Your task to perform on an android device: delete location history Image 0: 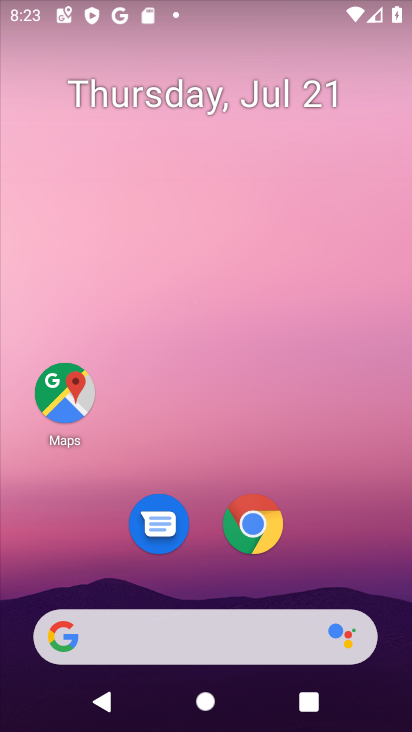
Step 0: click (79, 385)
Your task to perform on an android device: delete location history Image 1: 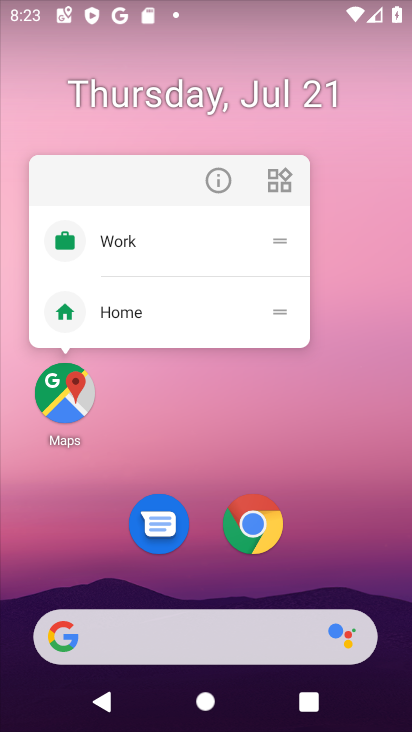
Step 1: click (71, 389)
Your task to perform on an android device: delete location history Image 2: 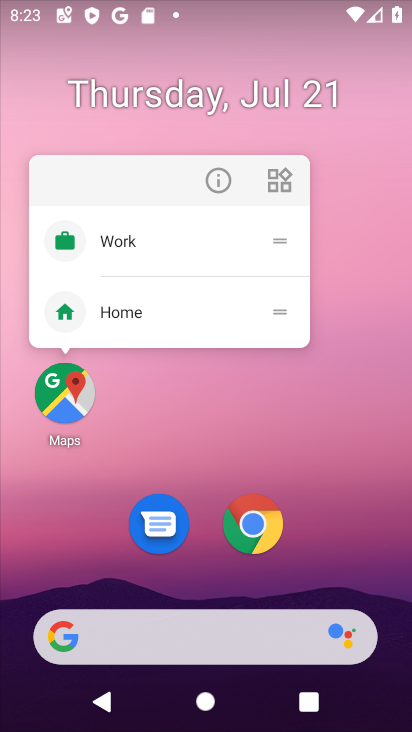
Step 2: click (66, 394)
Your task to perform on an android device: delete location history Image 3: 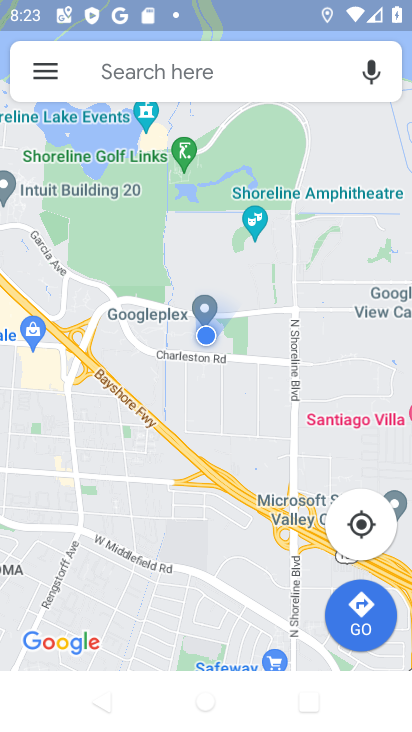
Step 3: click (47, 69)
Your task to perform on an android device: delete location history Image 4: 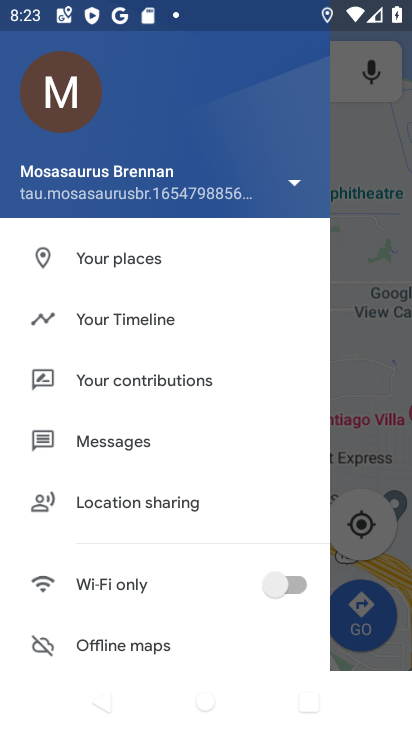
Step 4: click (138, 308)
Your task to perform on an android device: delete location history Image 5: 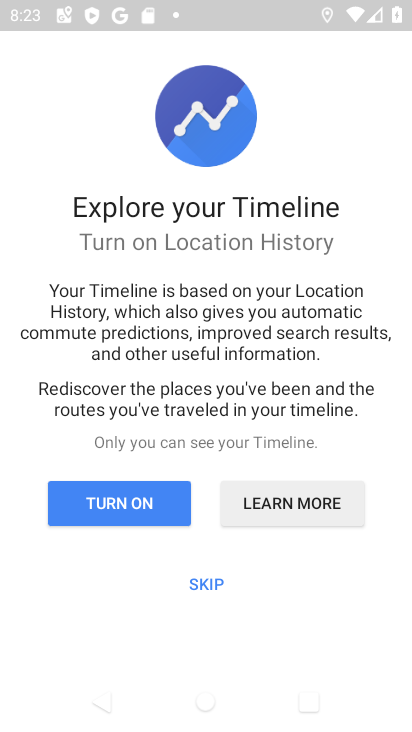
Step 5: click (224, 585)
Your task to perform on an android device: delete location history Image 6: 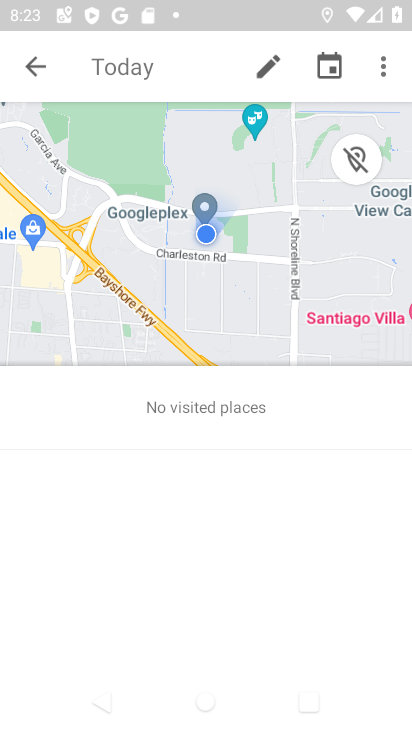
Step 6: click (378, 69)
Your task to perform on an android device: delete location history Image 7: 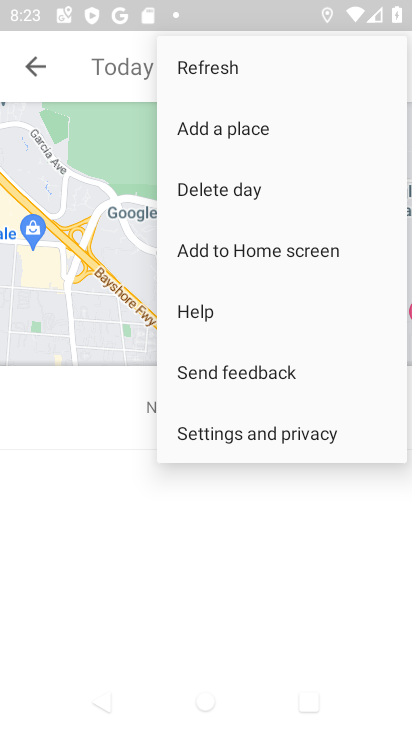
Step 7: click (253, 432)
Your task to perform on an android device: delete location history Image 8: 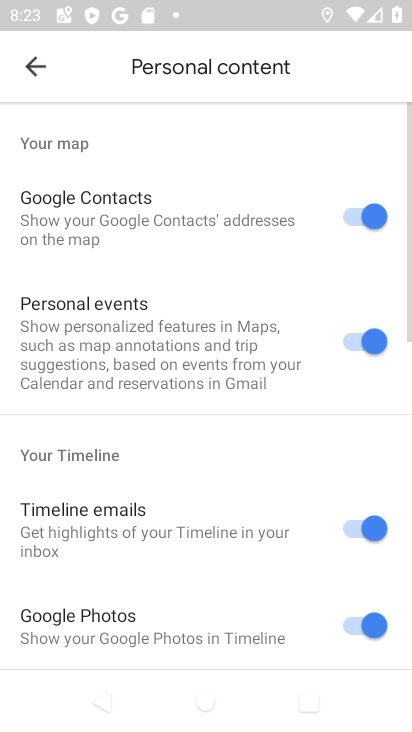
Step 8: drag from (181, 580) to (260, 41)
Your task to perform on an android device: delete location history Image 9: 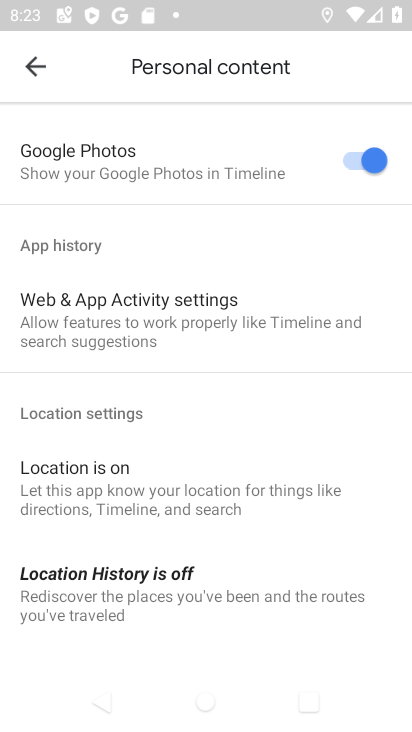
Step 9: drag from (283, 462) to (303, 23)
Your task to perform on an android device: delete location history Image 10: 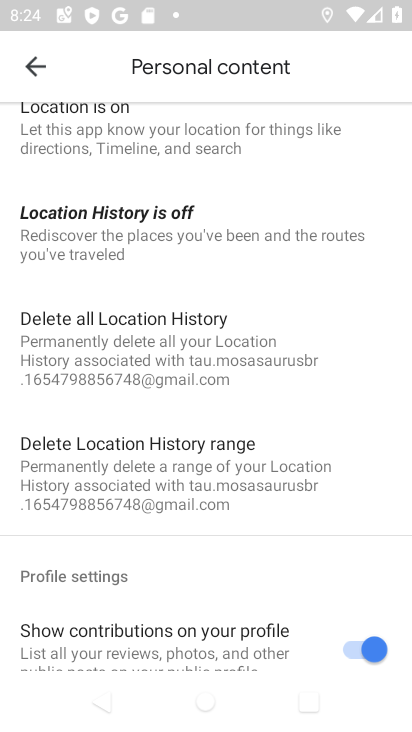
Step 10: click (165, 334)
Your task to perform on an android device: delete location history Image 11: 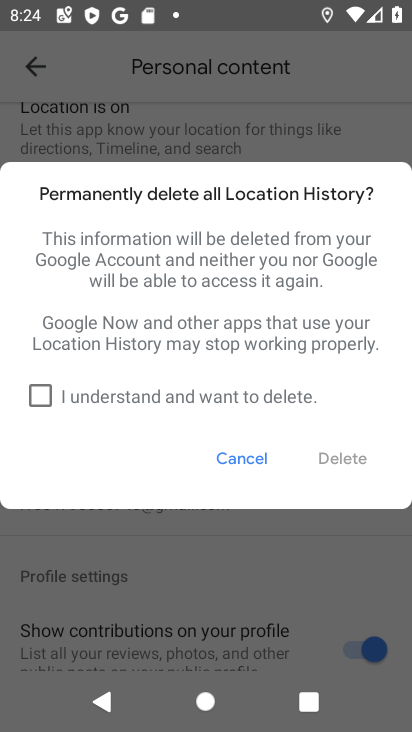
Step 11: click (36, 399)
Your task to perform on an android device: delete location history Image 12: 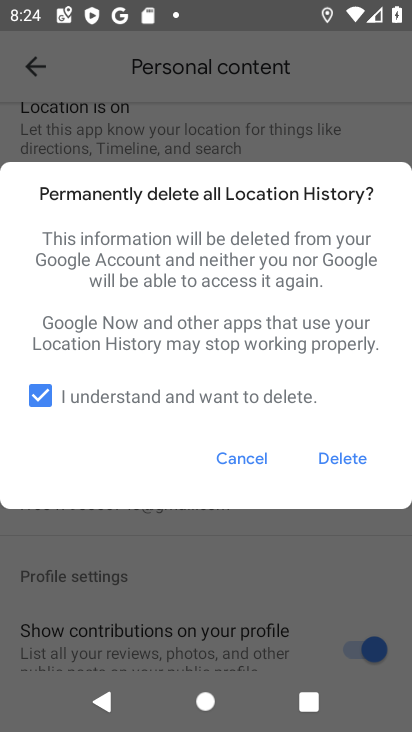
Step 12: click (339, 458)
Your task to perform on an android device: delete location history Image 13: 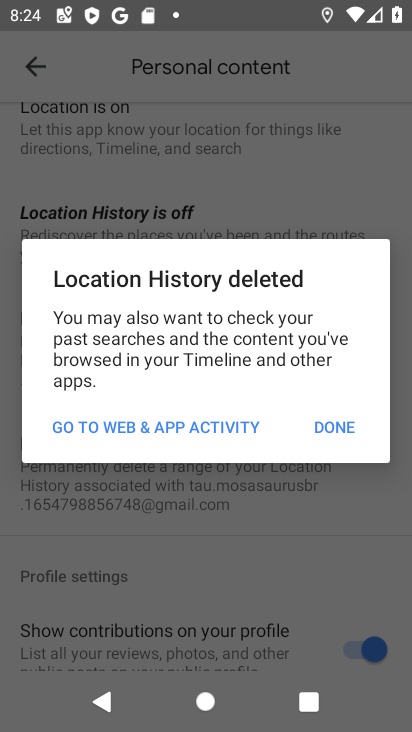
Step 13: click (326, 428)
Your task to perform on an android device: delete location history Image 14: 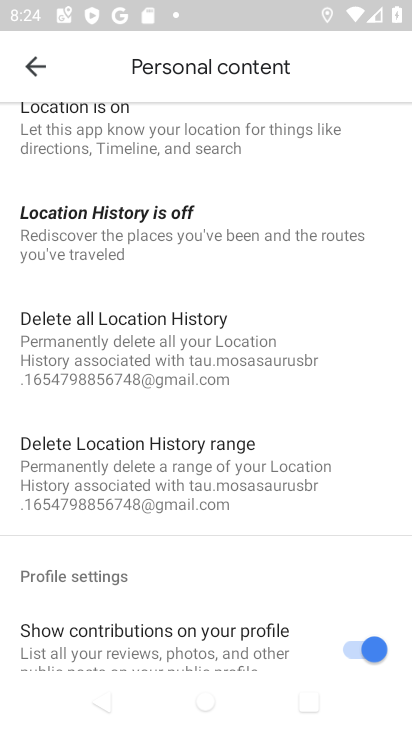
Step 14: task complete